Your task to perform on an android device: install app "Pluto TV - Live TV and Movies" Image 0: 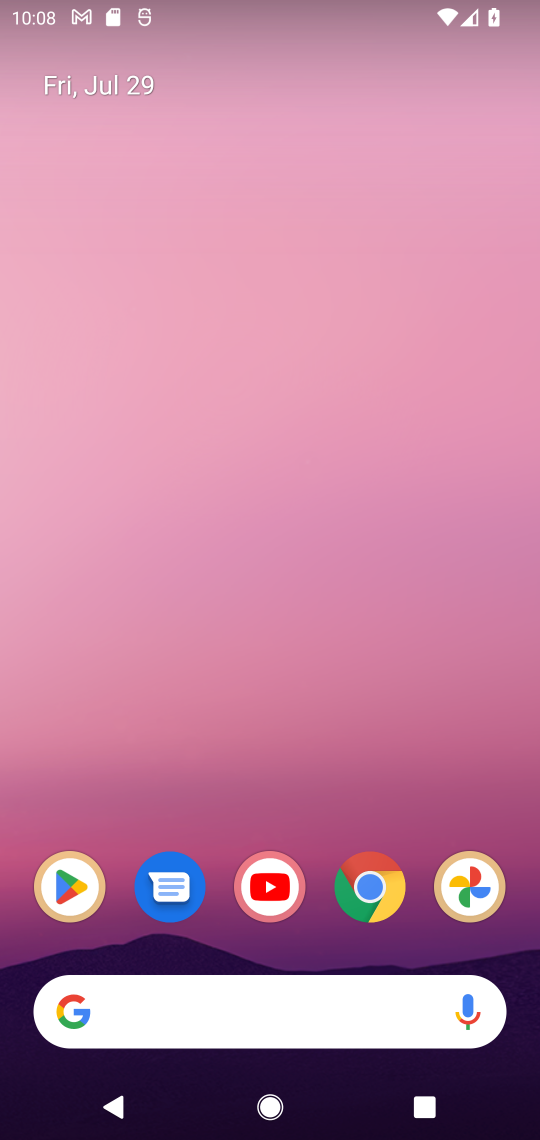
Step 0: click (72, 876)
Your task to perform on an android device: install app "Pluto TV - Live TV and Movies" Image 1: 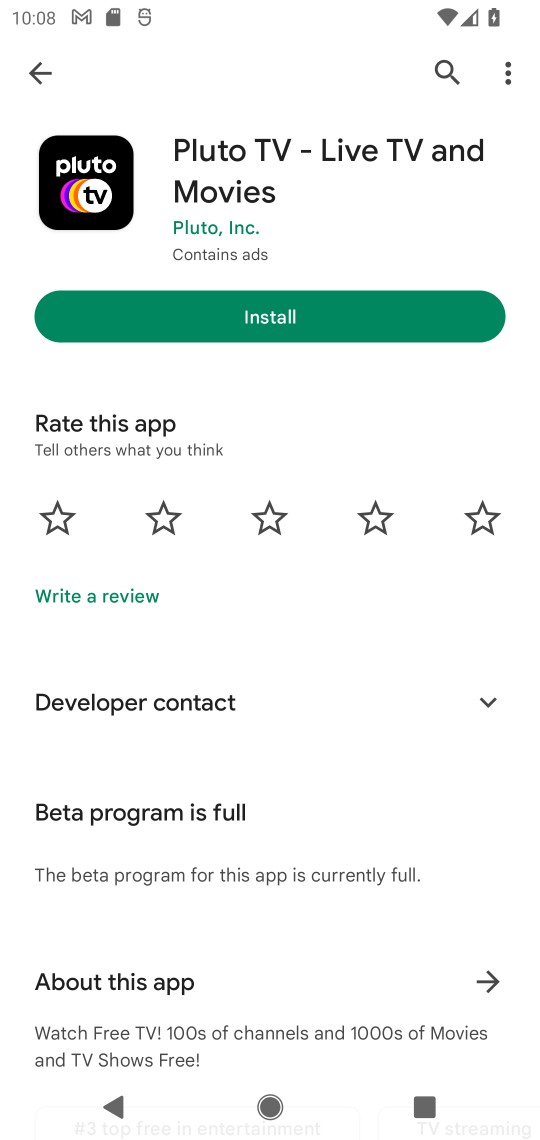
Step 1: click (433, 62)
Your task to perform on an android device: install app "Pluto TV - Live TV and Movies" Image 2: 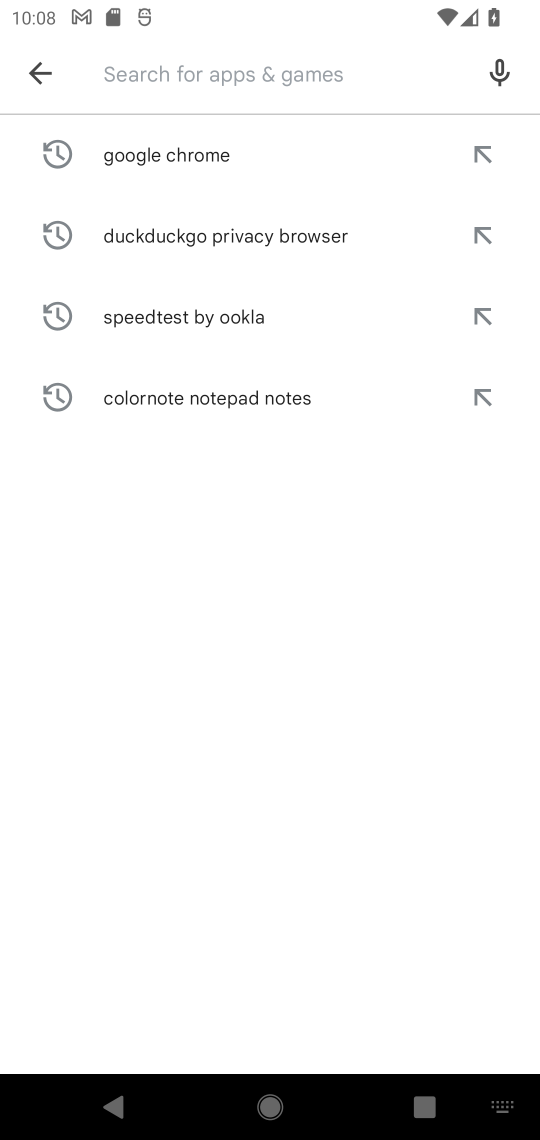
Step 2: type "pluto tv - live tv and movies"
Your task to perform on an android device: install app "Pluto TV - Live TV and Movies" Image 3: 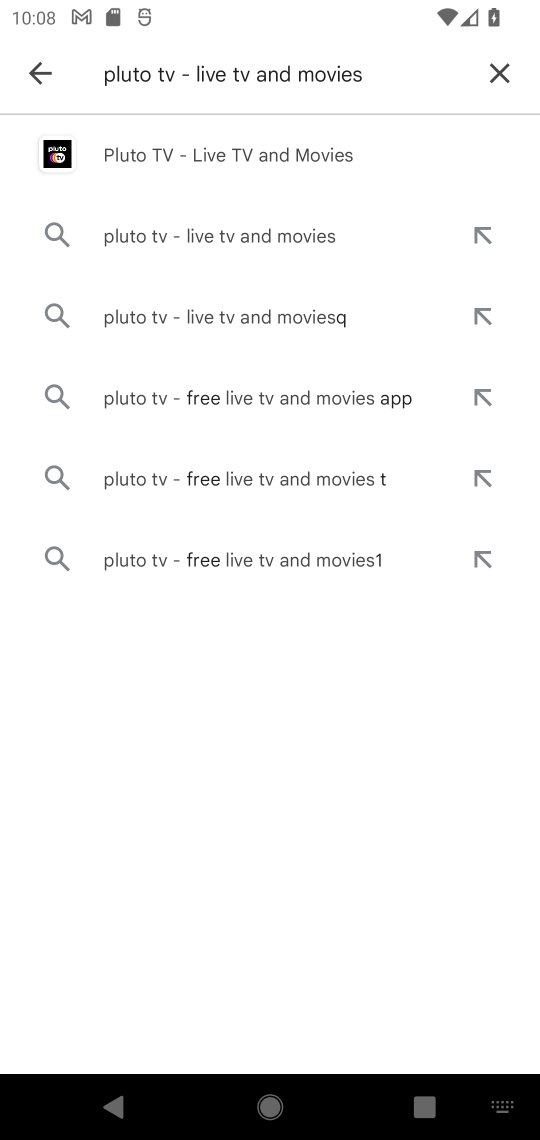
Step 3: click (388, 156)
Your task to perform on an android device: install app "Pluto TV - Live TV and Movies" Image 4: 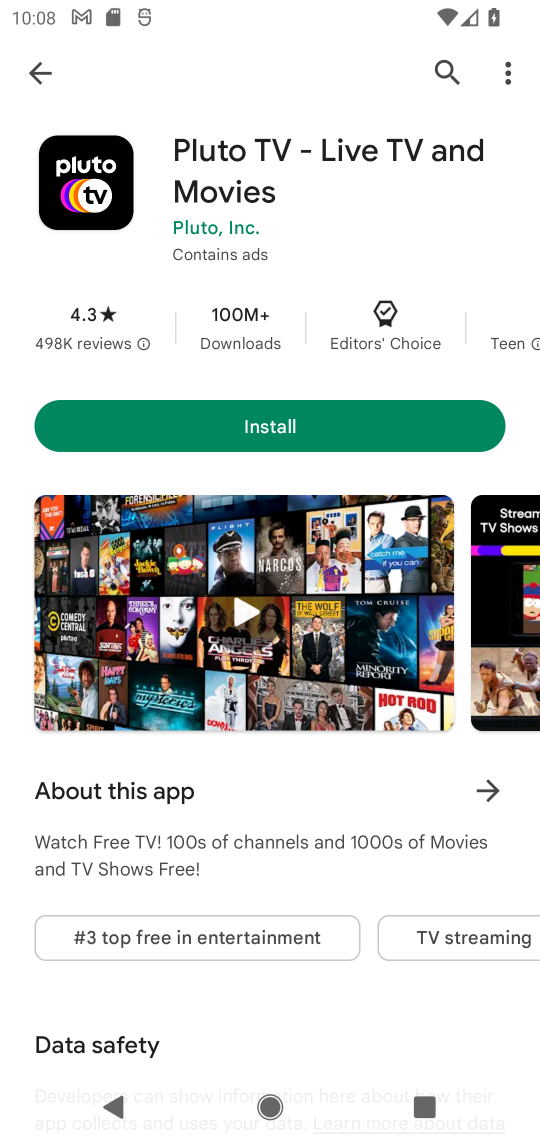
Step 4: click (337, 411)
Your task to perform on an android device: install app "Pluto TV - Live TV and Movies" Image 5: 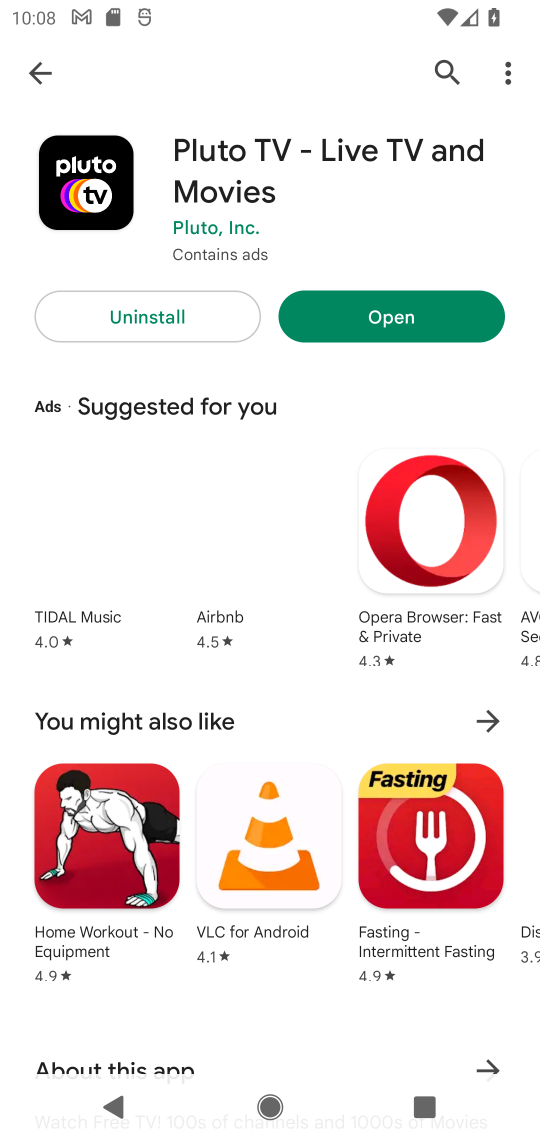
Step 5: task complete